Your task to perform on an android device: toggle javascript in the chrome app Image 0: 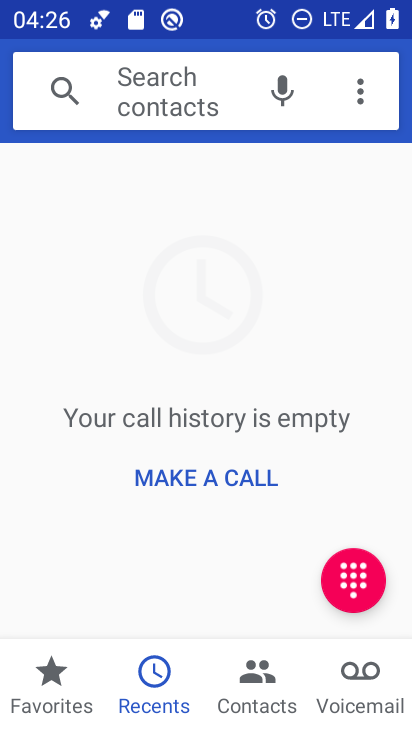
Step 0: press home button
Your task to perform on an android device: toggle javascript in the chrome app Image 1: 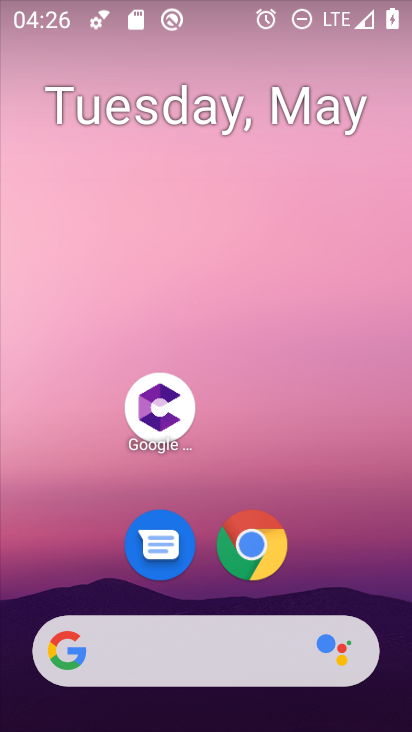
Step 1: drag from (353, 560) to (351, 230)
Your task to perform on an android device: toggle javascript in the chrome app Image 2: 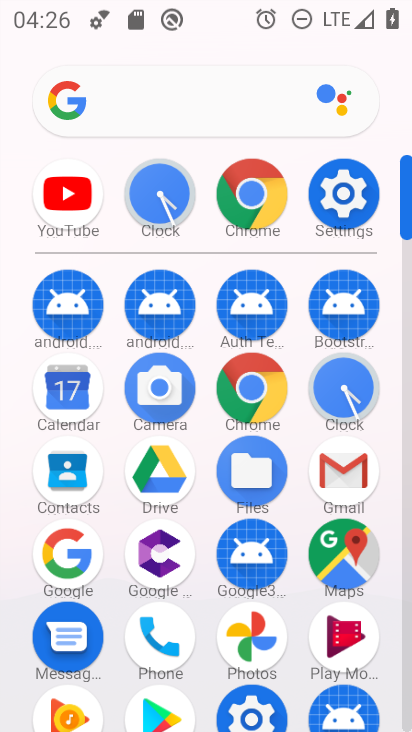
Step 2: click (264, 401)
Your task to perform on an android device: toggle javascript in the chrome app Image 3: 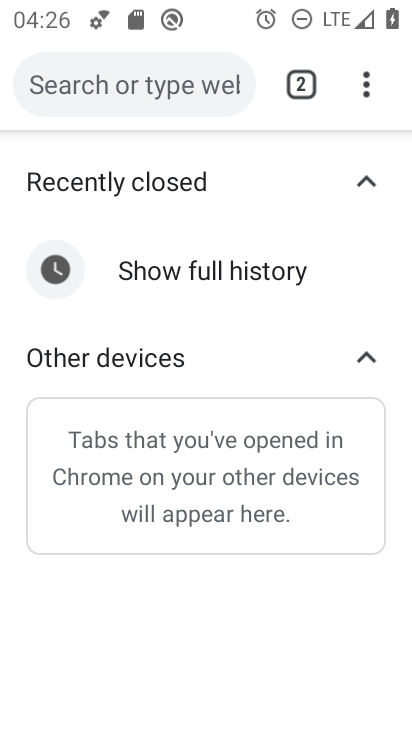
Step 3: click (368, 88)
Your task to perform on an android device: toggle javascript in the chrome app Image 4: 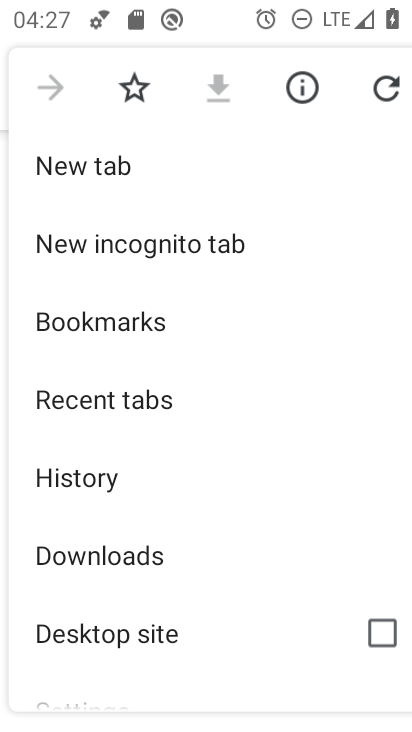
Step 4: drag from (271, 502) to (278, 420)
Your task to perform on an android device: toggle javascript in the chrome app Image 5: 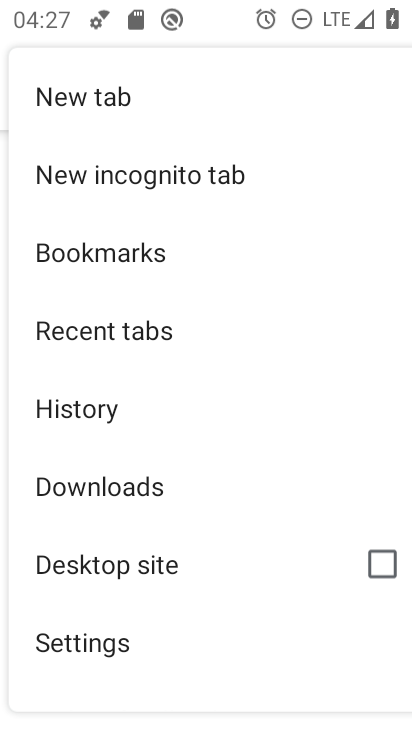
Step 5: drag from (276, 525) to (280, 439)
Your task to perform on an android device: toggle javascript in the chrome app Image 6: 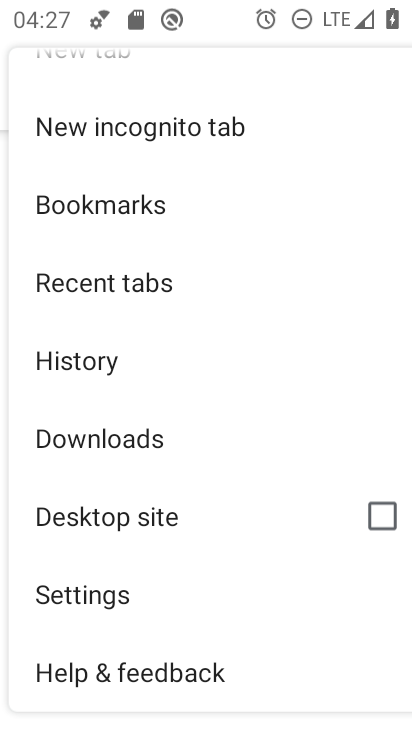
Step 6: drag from (268, 527) to (278, 439)
Your task to perform on an android device: toggle javascript in the chrome app Image 7: 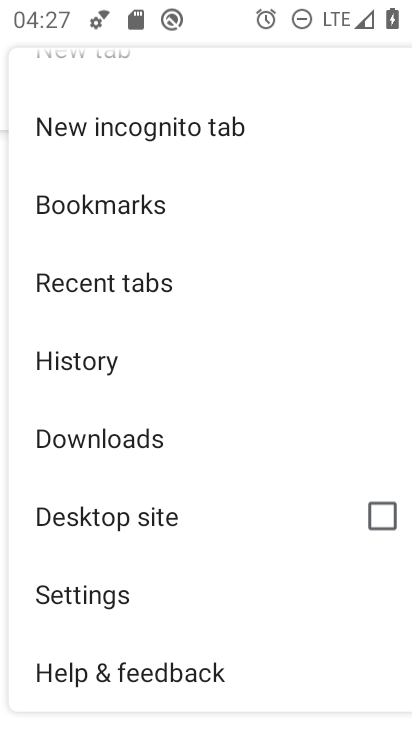
Step 7: drag from (271, 578) to (292, 494)
Your task to perform on an android device: toggle javascript in the chrome app Image 8: 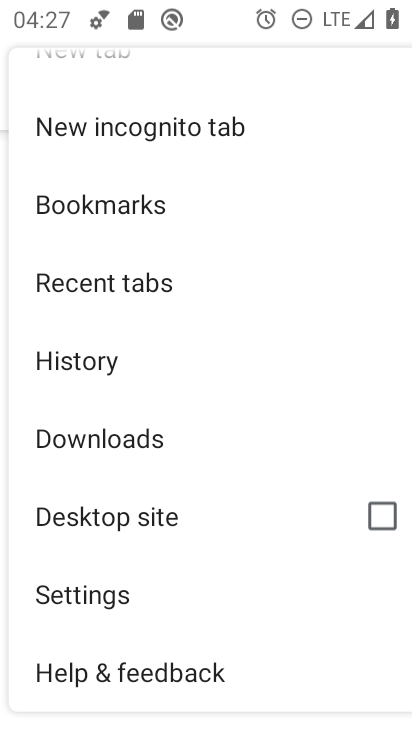
Step 8: click (109, 601)
Your task to perform on an android device: toggle javascript in the chrome app Image 9: 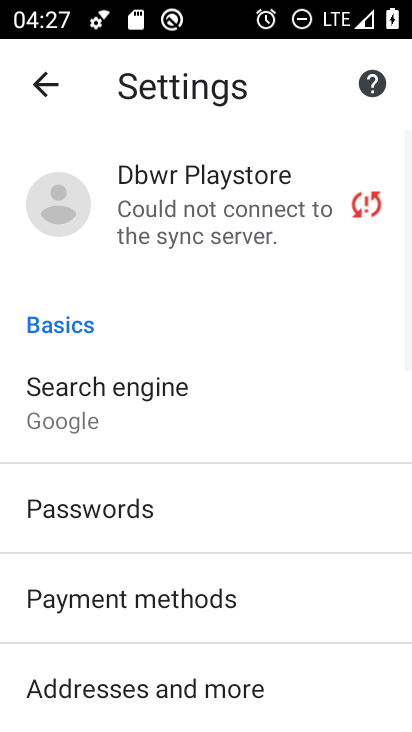
Step 9: drag from (288, 597) to (304, 503)
Your task to perform on an android device: toggle javascript in the chrome app Image 10: 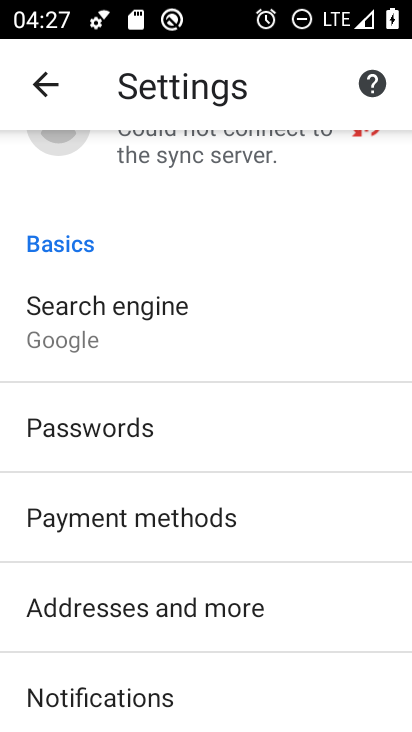
Step 10: drag from (291, 631) to (314, 524)
Your task to perform on an android device: toggle javascript in the chrome app Image 11: 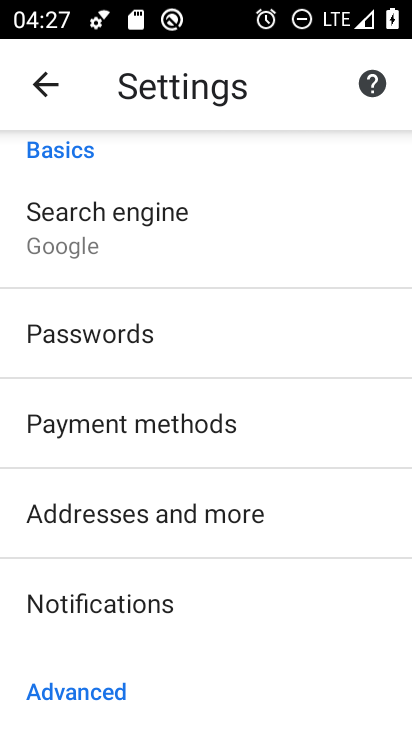
Step 11: drag from (307, 630) to (324, 524)
Your task to perform on an android device: toggle javascript in the chrome app Image 12: 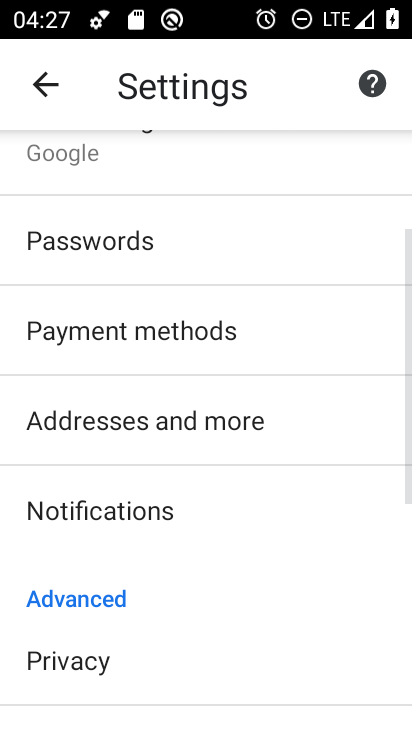
Step 12: drag from (287, 630) to (297, 565)
Your task to perform on an android device: toggle javascript in the chrome app Image 13: 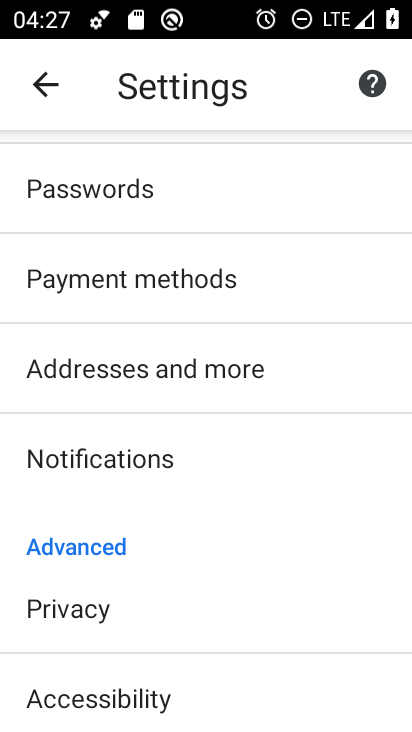
Step 13: drag from (281, 640) to (295, 560)
Your task to perform on an android device: toggle javascript in the chrome app Image 14: 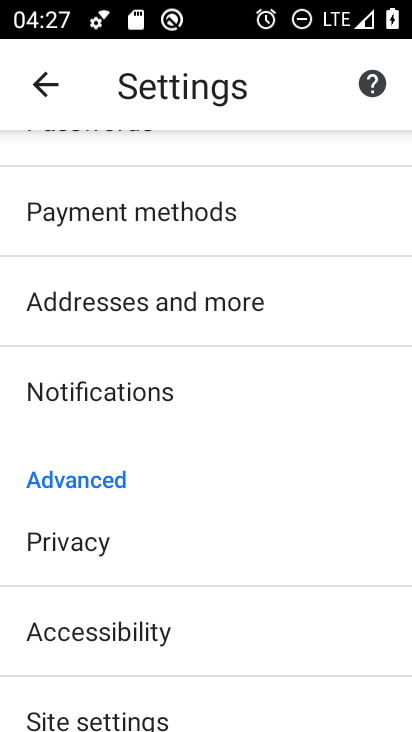
Step 14: drag from (276, 657) to (288, 587)
Your task to perform on an android device: toggle javascript in the chrome app Image 15: 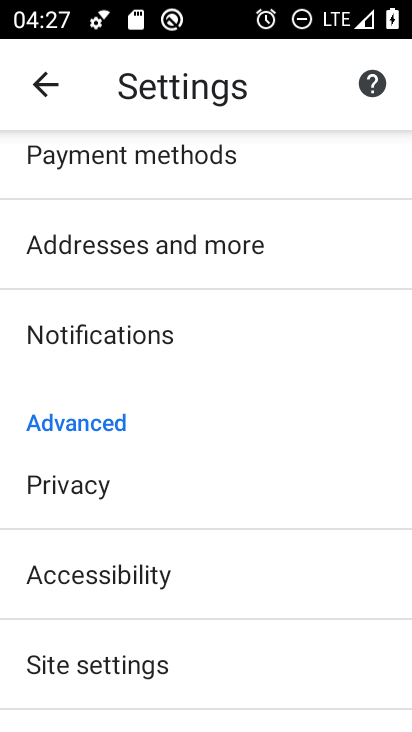
Step 15: drag from (286, 671) to (292, 612)
Your task to perform on an android device: toggle javascript in the chrome app Image 16: 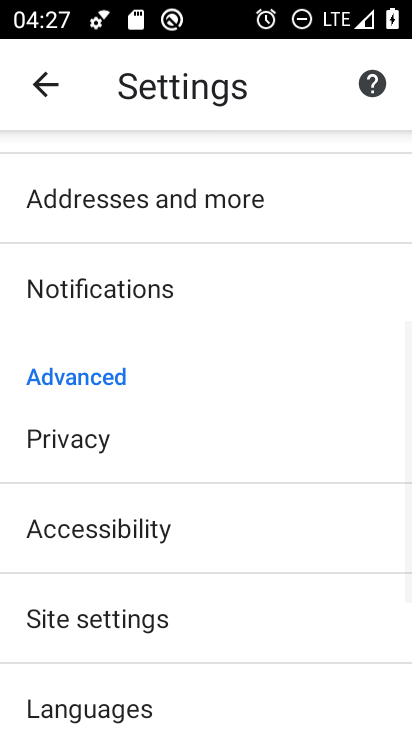
Step 16: drag from (277, 685) to (275, 606)
Your task to perform on an android device: toggle javascript in the chrome app Image 17: 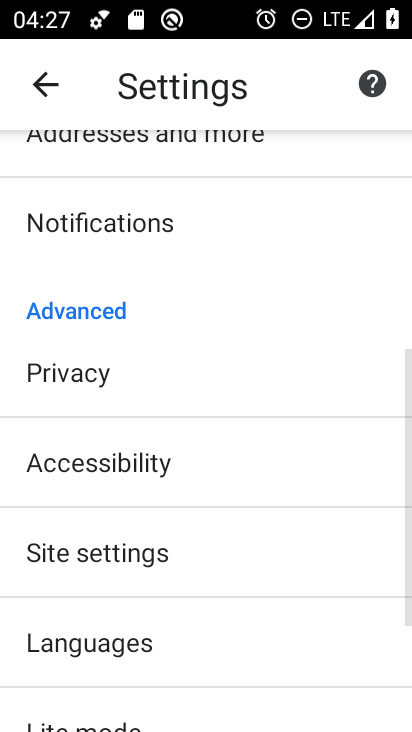
Step 17: drag from (267, 672) to (270, 570)
Your task to perform on an android device: toggle javascript in the chrome app Image 18: 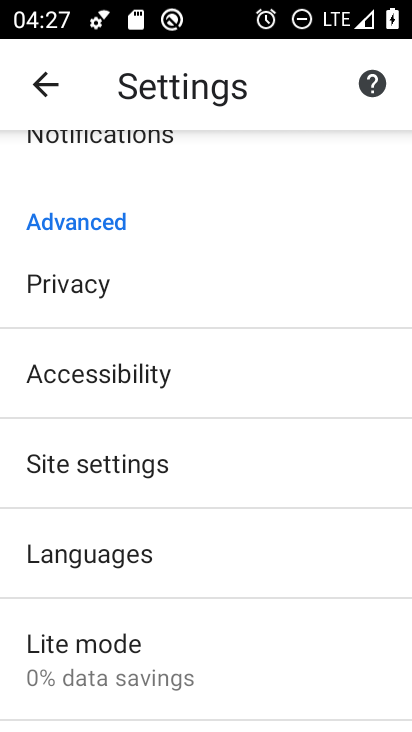
Step 18: click (217, 479)
Your task to perform on an android device: toggle javascript in the chrome app Image 19: 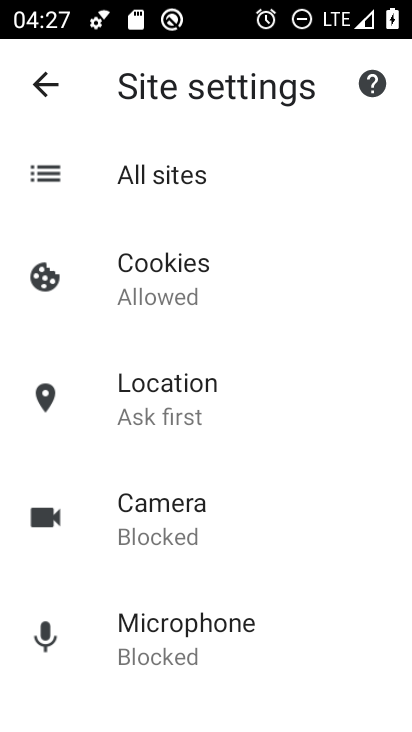
Step 19: drag from (325, 624) to (324, 557)
Your task to perform on an android device: toggle javascript in the chrome app Image 20: 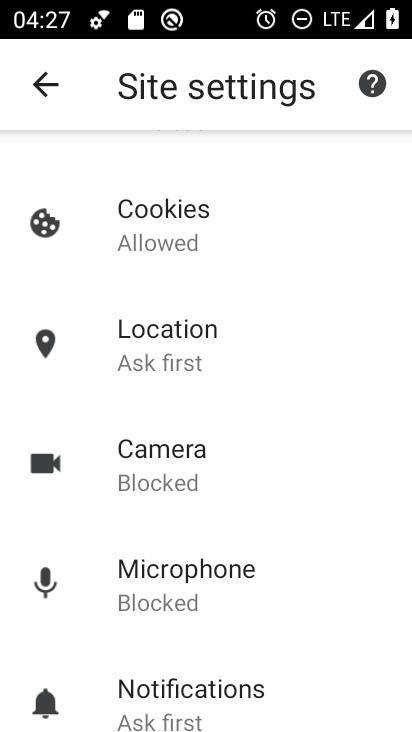
Step 20: drag from (319, 642) to (323, 555)
Your task to perform on an android device: toggle javascript in the chrome app Image 21: 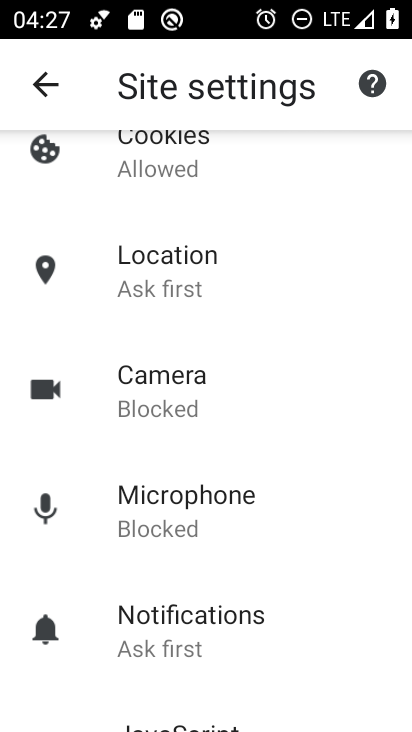
Step 21: drag from (319, 652) to (326, 565)
Your task to perform on an android device: toggle javascript in the chrome app Image 22: 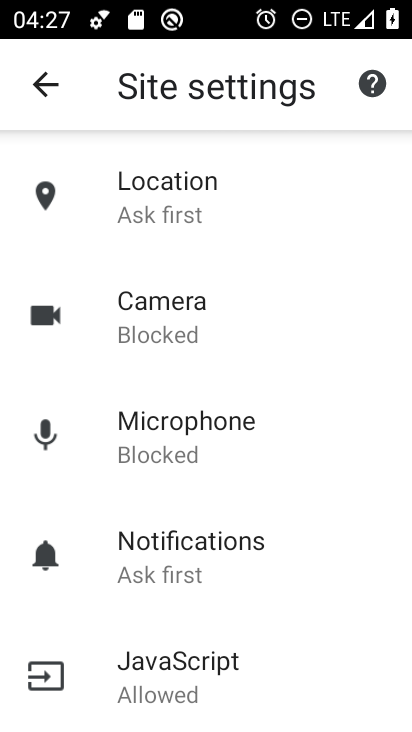
Step 22: drag from (306, 641) to (307, 569)
Your task to perform on an android device: toggle javascript in the chrome app Image 23: 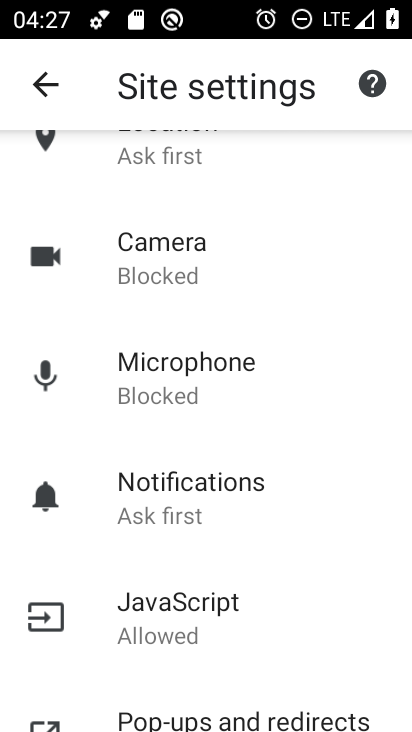
Step 23: drag from (294, 641) to (292, 583)
Your task to perform on an android device: toggle javascript in the chrome app Image 24: 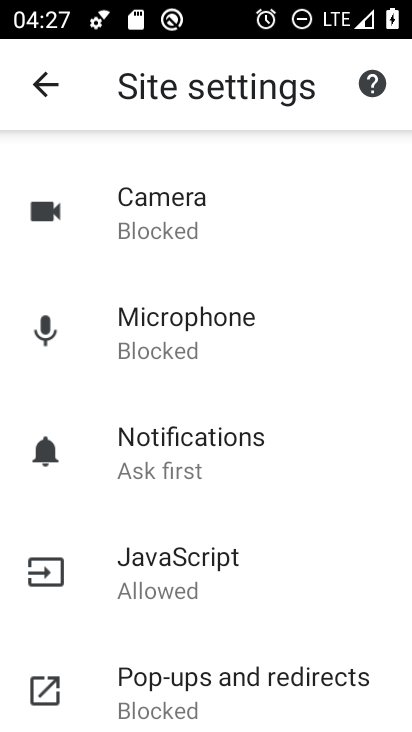
Step 24: drag from (284, 621) to (297, 530)
Your task to perform on an android device: toggle javascript in the chrome app Image 25: 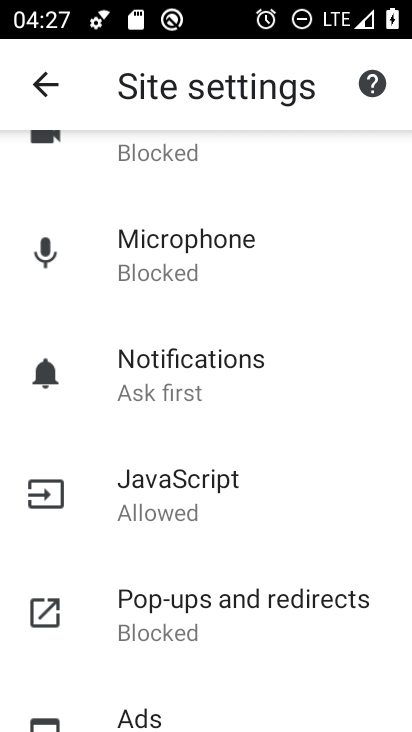
Step 25: click (216, 491)
Your task to perform on an android device: toggle javascript in the chrome app Image 26: 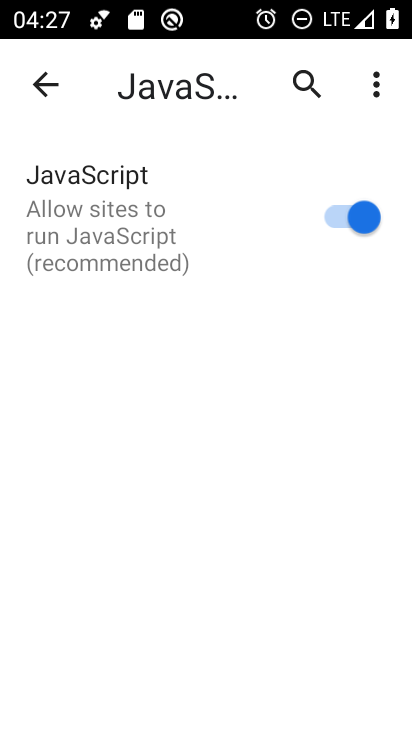
Step 26: click (345, 224)
Your task to perform on an android device: toggle javascript in the chrome app Image 27: 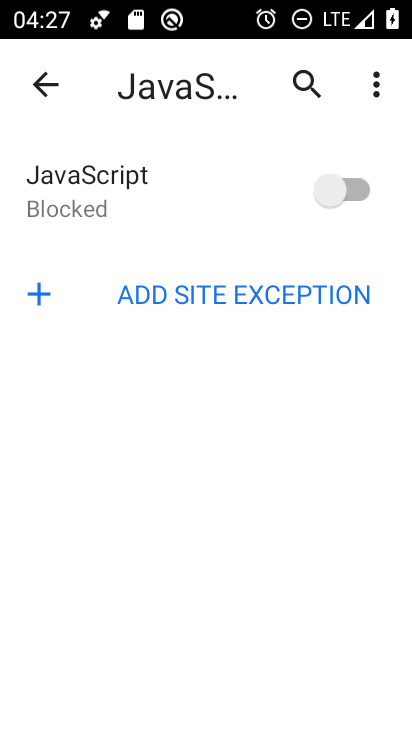
Step 27: task complete